Your task to perform on an android device: change notifications settings Image 0: 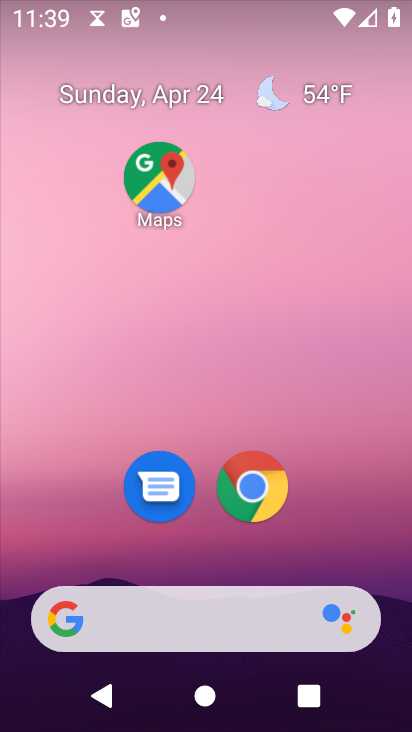
Step 0: drag from (265, 570) to (245, 149)
Your task to perform on an android device: change notifications settings Image 1: 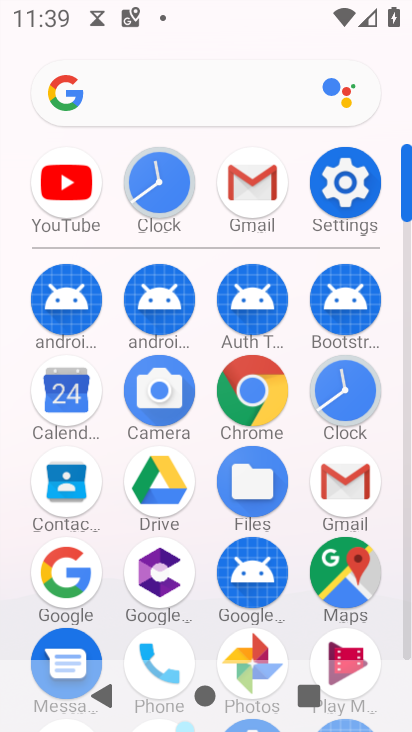
Step 1: click (332, 198)
Your task to perform on an android device: change notifications settings Image 2: 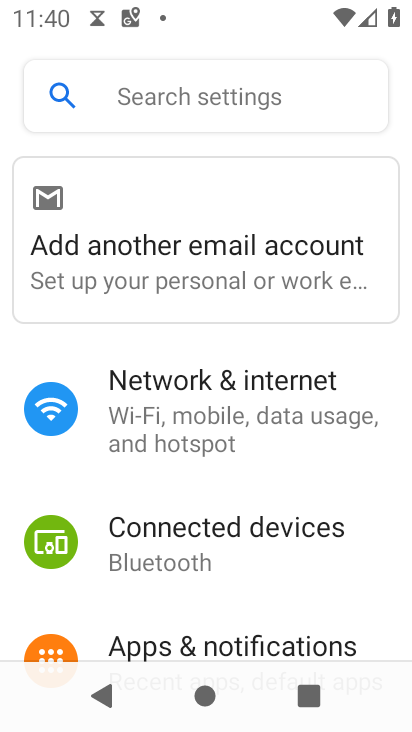
Step 2: click (247, 634)
Your task to perform on an android device: change notifications settings Image 3: 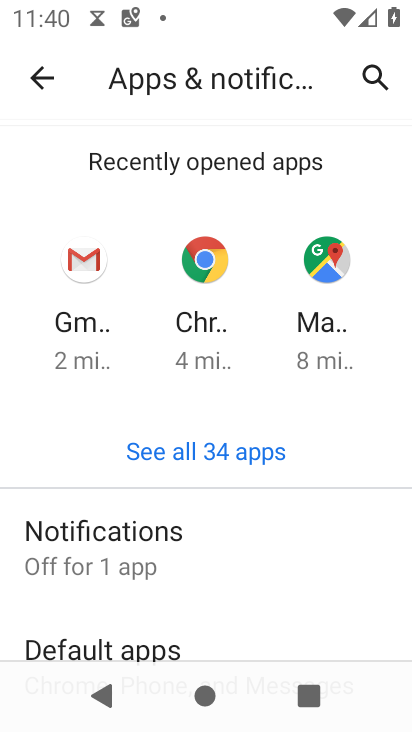
Step 3: click (191, 570)
Your task to perform on an android device: change notifications settings Image 4: 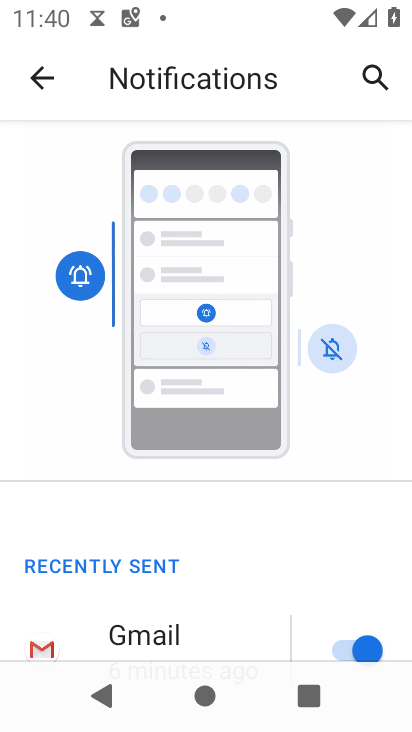
Step 4: click (361, 649)
Your task to perform on an android device: change notifications settings Image 5: 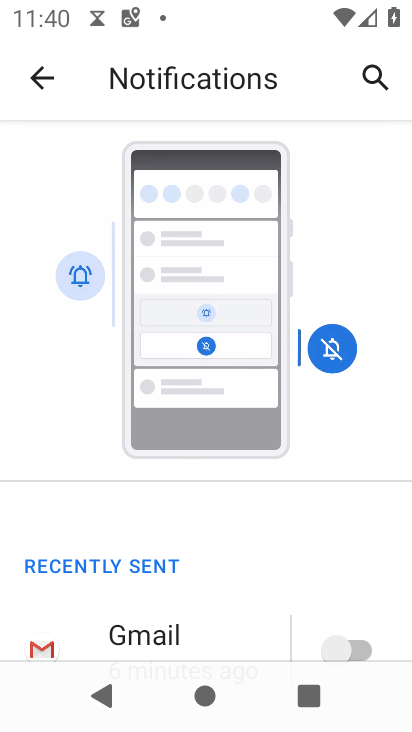
Step 5: task complete